Your task to perform on an android device: find which apps use the phone's location Image 0: 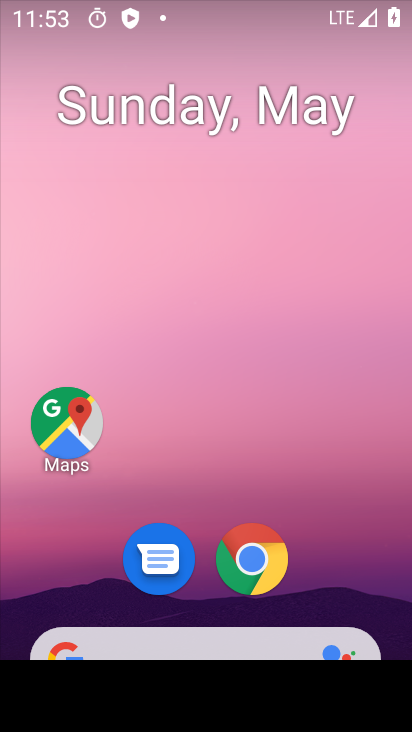
Step 0: drag from (279, 619) to (321, 124)
Your task to perform on an android device: find which apps use the phone's location Image 1: 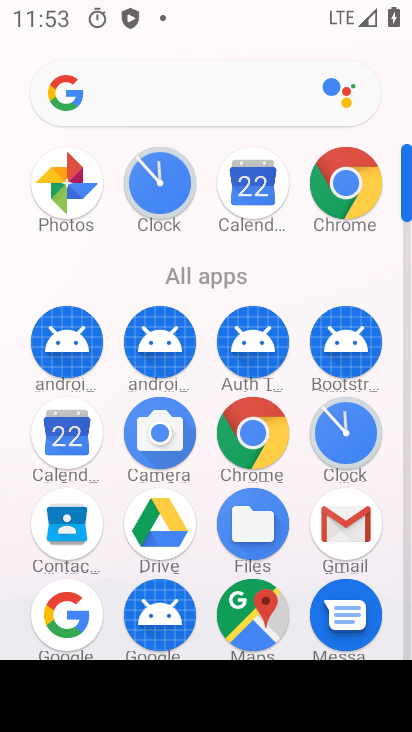
Step 1: drag from (197, 522) to (224, 163)
Your task to perform on an android device: find which apps use the phone's location Image 2: 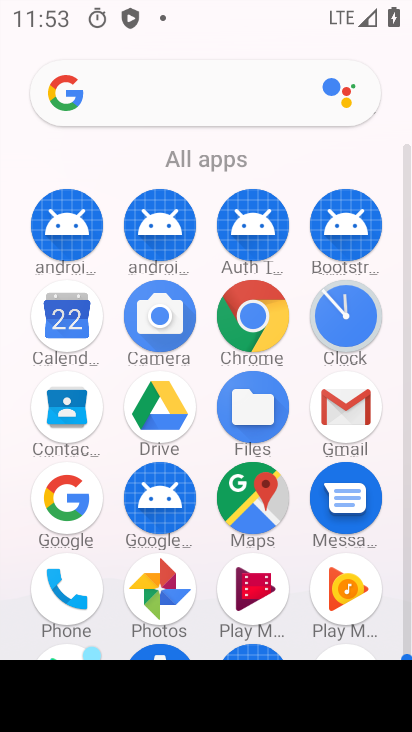
Step 2: drag from (200, 649) to (238, 368)
Your task to perform on an android device: find which apps use the phone's location Image 3: 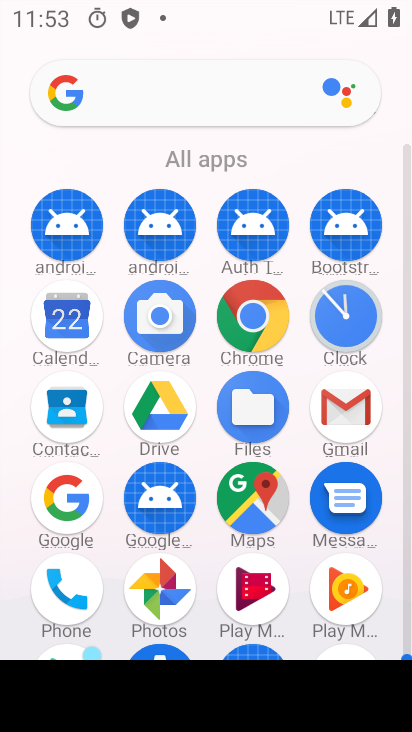
Step 3: drag from (219, 597) to (218, 202)
Your task to perform on an android device: find which apps use the phone's location Image 4: 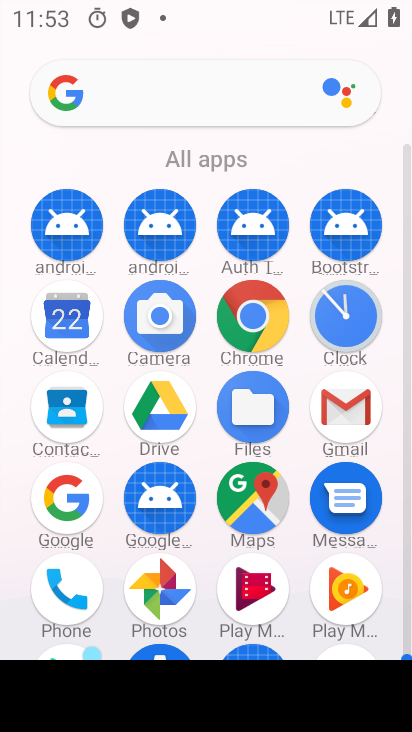
Step 4: click (163, 658)
Your task to perform on an android device: find which apps use the phone's location Image 5: 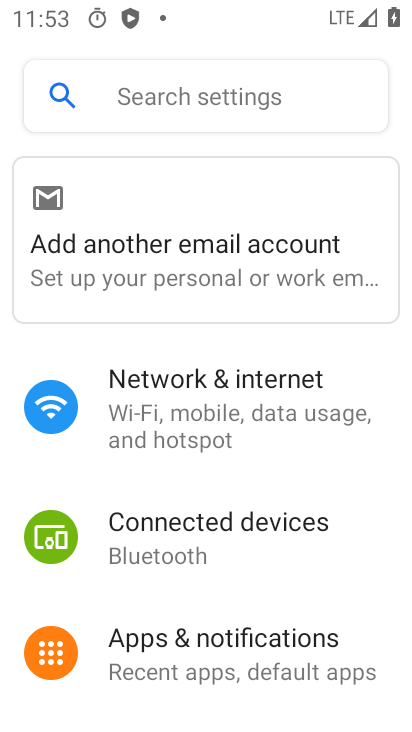
Step 5: drag from (338, 664) to (382, 68)
Your task to perform on an android device: find which apps use the phone's location Image 6: 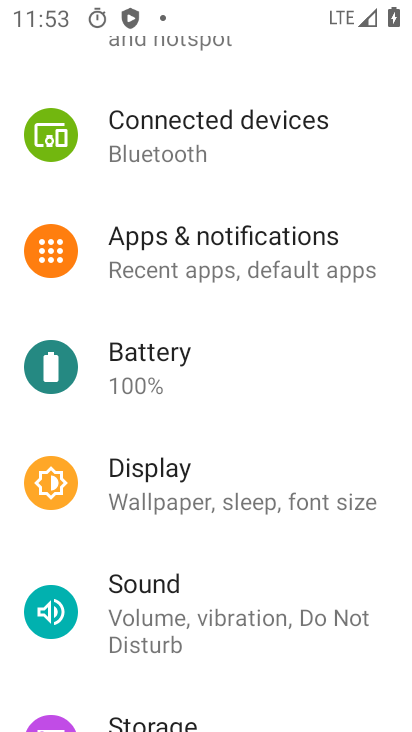
Step 6: drag from (185, 708) to (205, 252)
Your task to perform on an android device: find which apps use the phone's location Image 7: 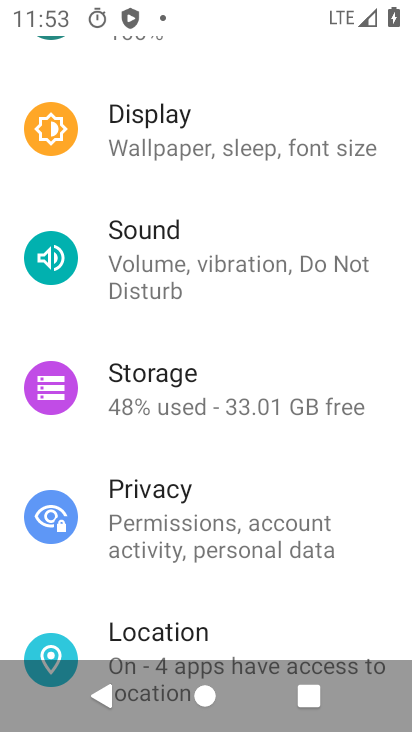
Step 7: click (196, 632)
Your task to perform on an android device: find which apps use the phone's location Image 8: 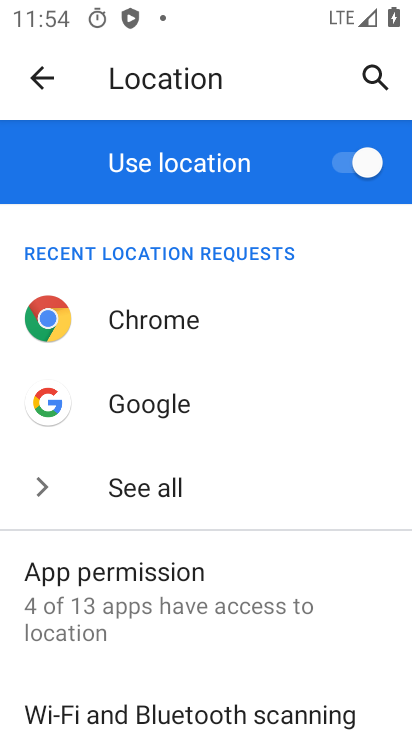
Step 8: click (338, 574)
Your task to perform on an android device: find which apps use the phone's location Image 9: 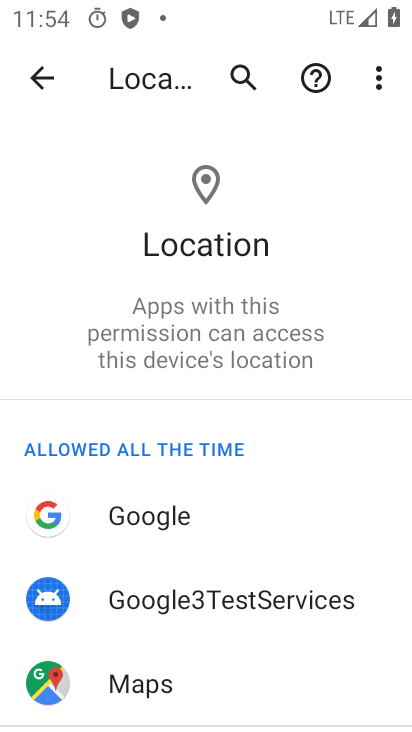
Step 9: task complete